Your task to perform on an android device: Turn on the flashlight Image 0: 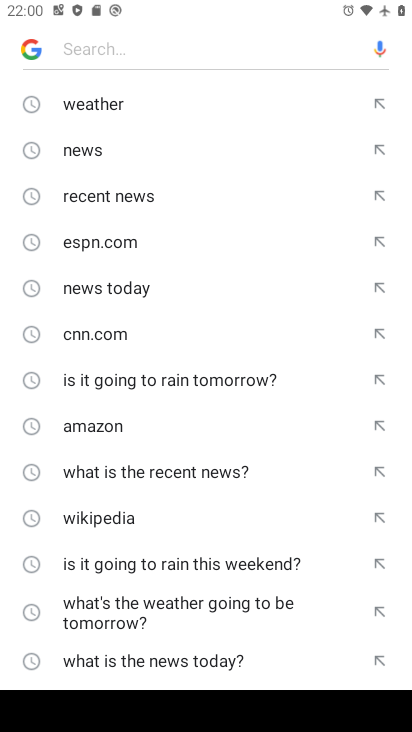
Step 0: press home button
Your task to perform on an android device: Turn on the flashlight Image 1: 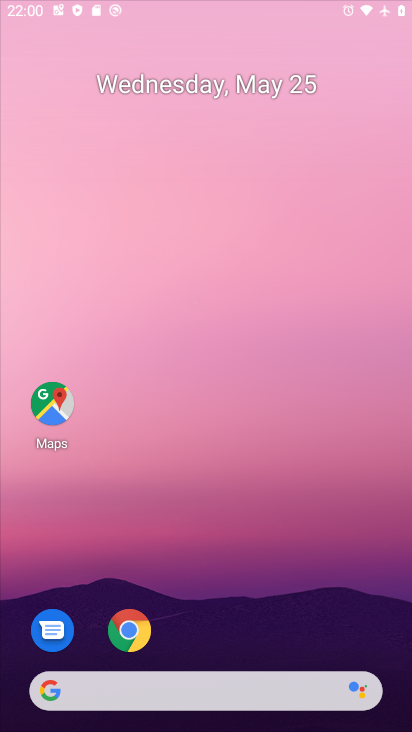
Step 1: drag from (202, 605) to (227, 173)
Your task to perform on an android device: Turn on the flashlight Image 2: 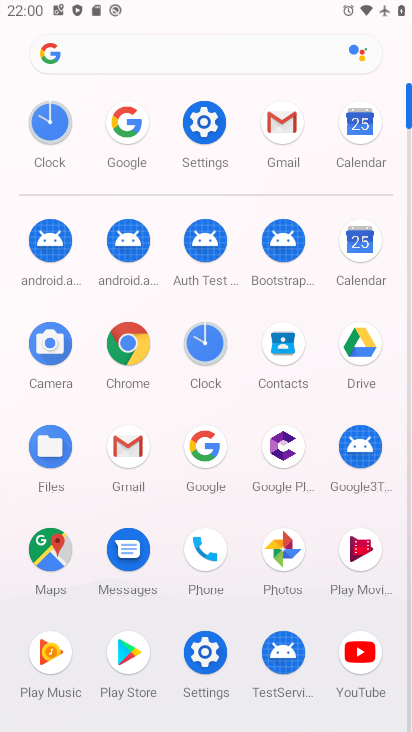
Step 2: click (220, 139)
Your task to perform on an android device: Turn on the flashlight Image 3: 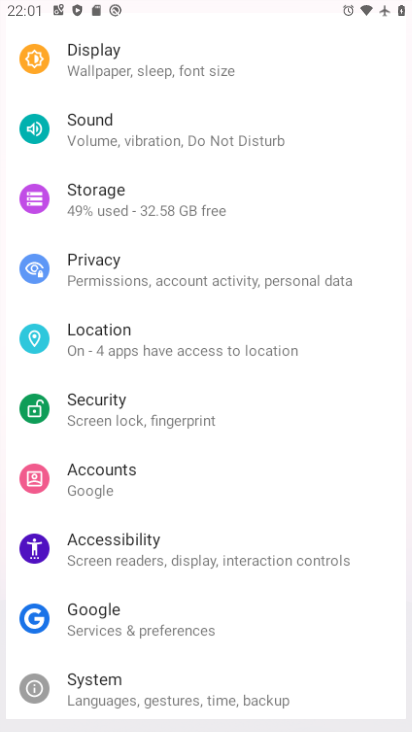
Step 3: task complete